Your task to perform on an android device: delete location history Image 0: 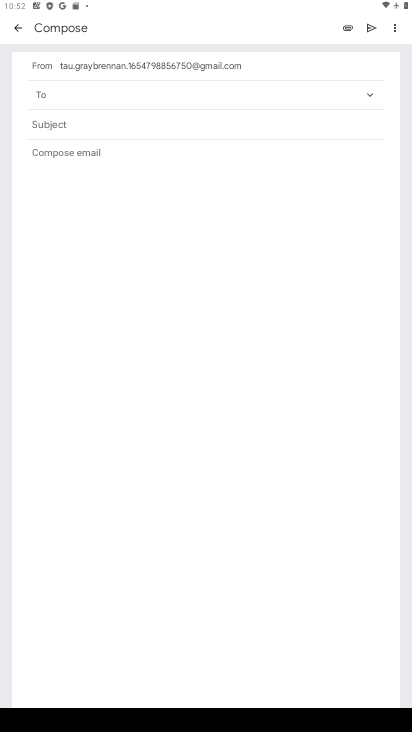
Step 0: press home button
Your task to perform on an android device: delete location history Image 1: 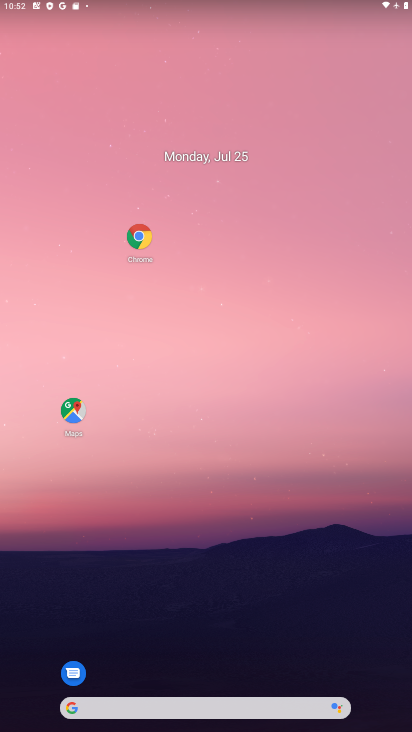
Step 1: drag from (241, 675) to (252, 266)
Your task to perform on an android device: delete location history Image 2: 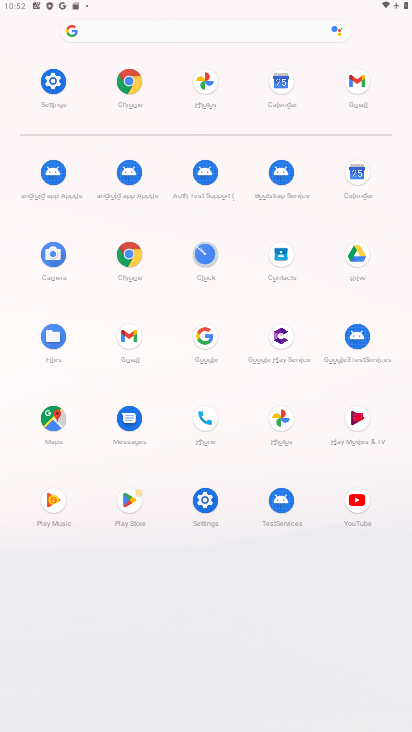
Step 2: click (59, 109)
Your task to perform on an android device: delete location history Image 3: 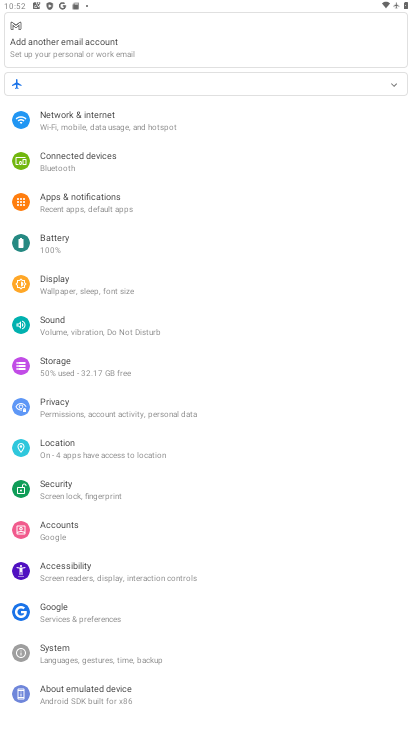
Step 3: click (116, 441)
Your task to perform on an android device: delete location history Image 4: 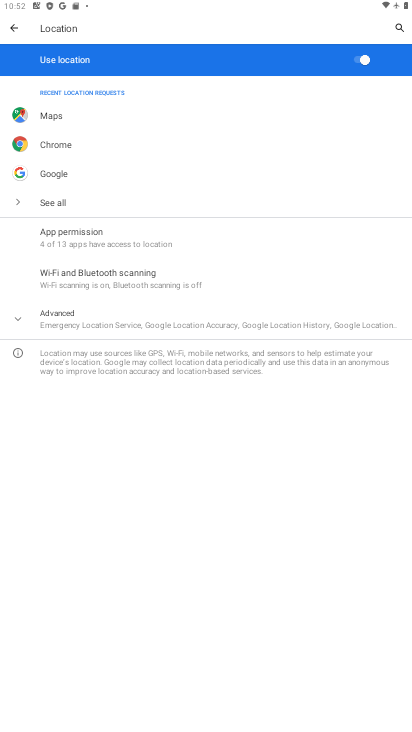
Step 4: click (160, 326)
Your task to perform on an android device: delete location history Image 5: 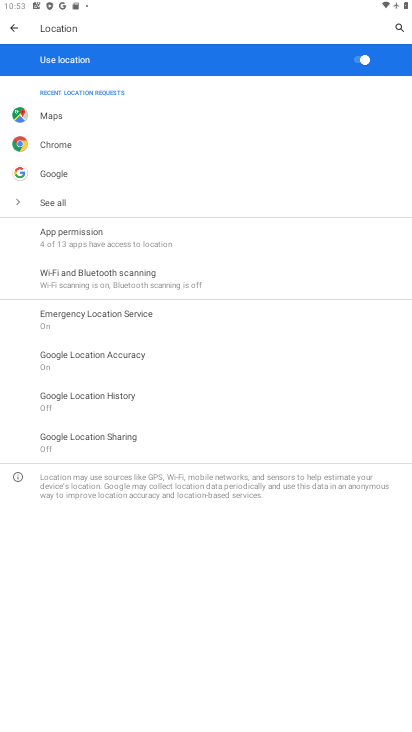
Step 5: click (133, 391)
Your task to perform on an android device: delete location history Image 6: 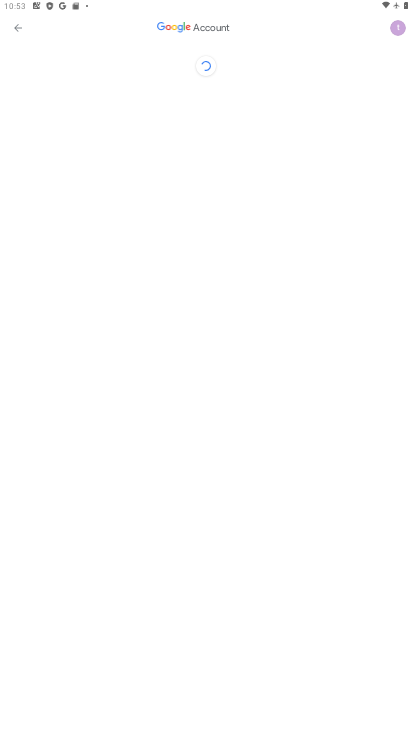
Step 6: task complete